Your task to perform on an android device: Open the calendar and show me this week's events Image 0: 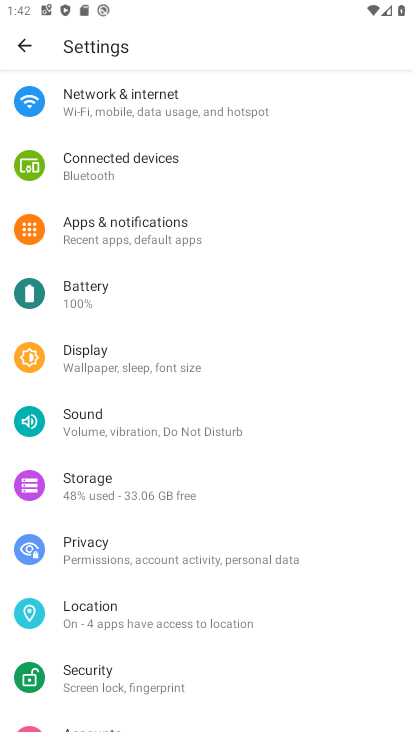
Step 0: press back button
Your task to perform on an android device: Open the calendar and show me this week's events Image 1: 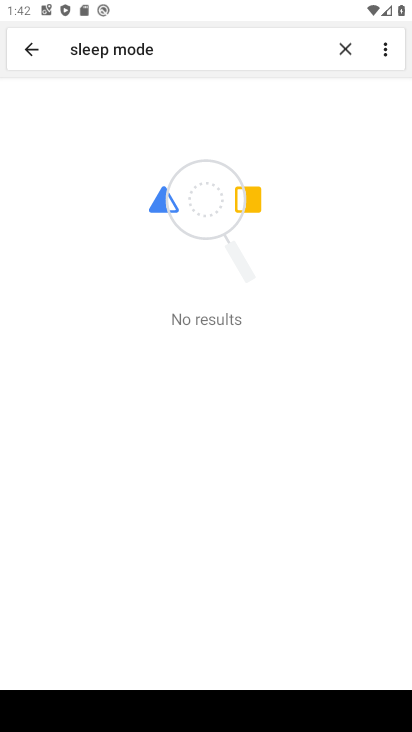
Step 1: press back button
Your task to perform on an android device: Open the calendar and show me this week's events Image 2: 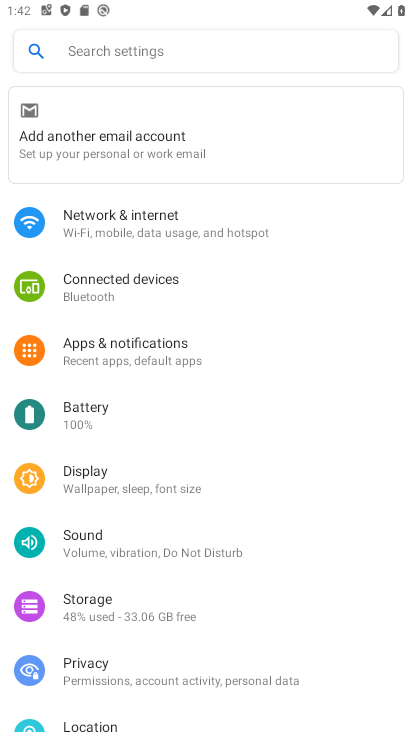
Step 2: press back button
Your task to perform on an android device: Open the calendar and show me this week's events Image 3: 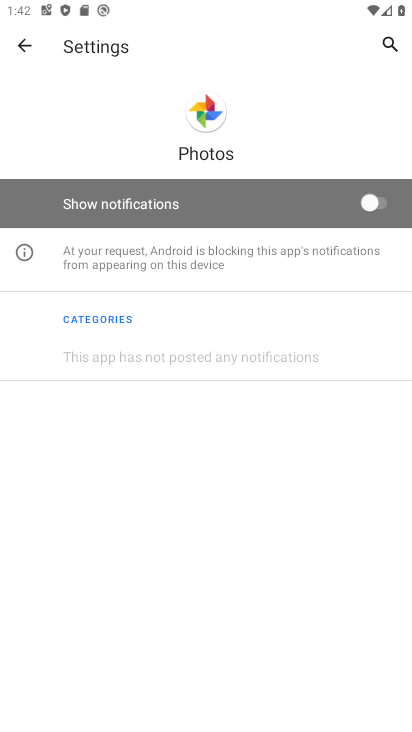
Step 3: press back button
Your task to perform on an android device: Open the calendar and show me this week's events Image 4: 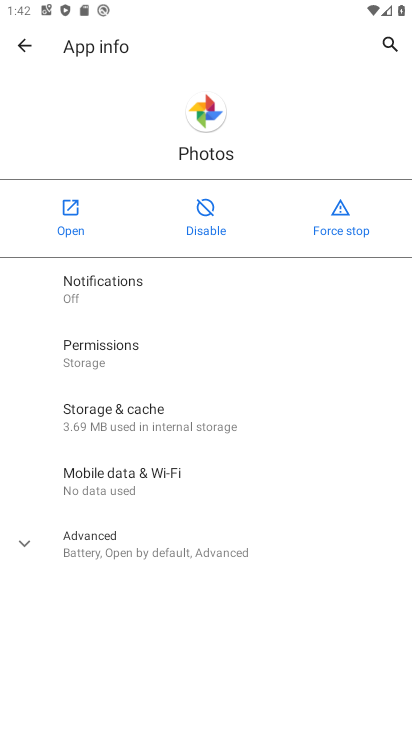
Step 4: press back button
Your task to perform on an android device: Open the calendar and show me this week's events Image 5: 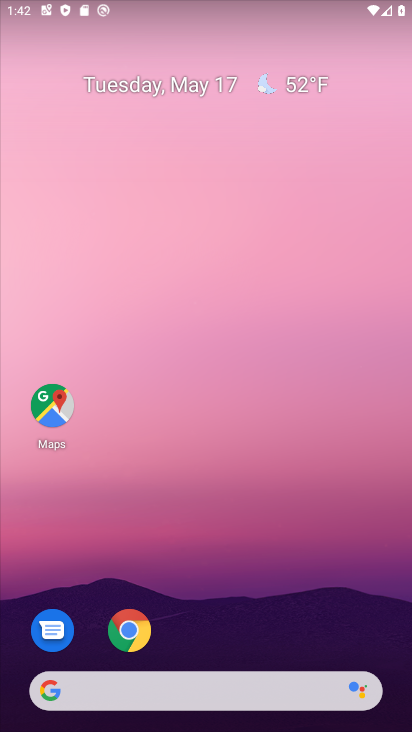
Step 5: drag from (309, 557) to (306, 41)
Your task to perform on an android device: Open the calendar and show me this week's events Image 6: 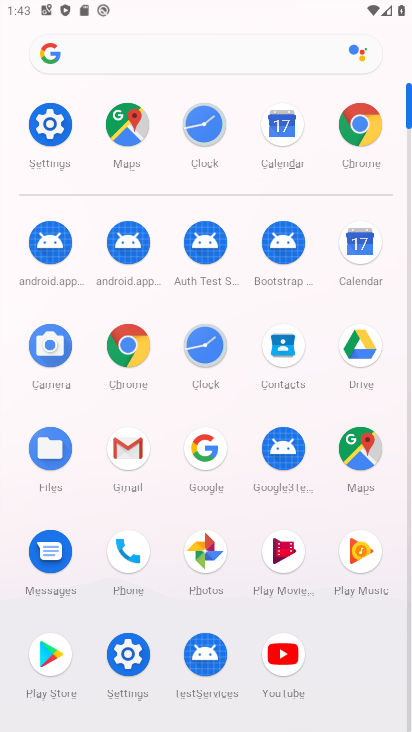
Step 6: click (363, 250)
Your task to perform on an android device: Open the calendar and show me this week's events Image 7: 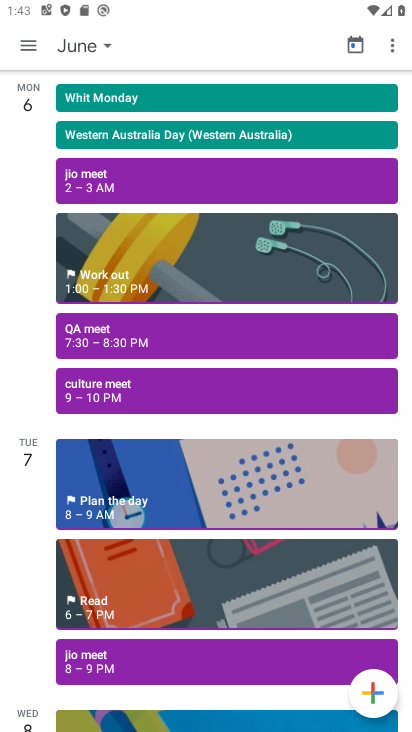
Step 7: click (101, 50)
Your task to perform on an android device: Open the calendar and show me this week's events Image 8: 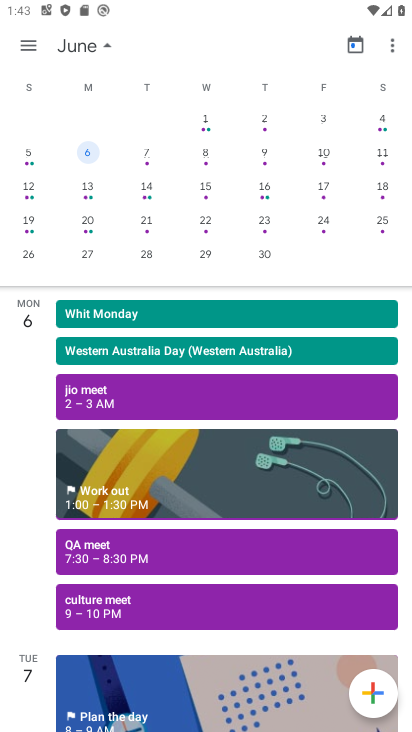
Step 8: drag from (17, 180) to (408, 129)
Your task to perform on an android device: Open the calendar and show me this week's events Image 9: 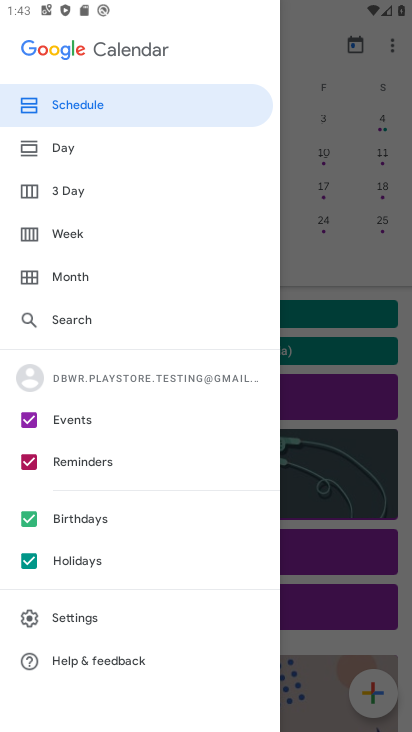
Step 9: click (331, 208)
Your task to perform on an android device: Open the calendar and show me this week's events Image 10: 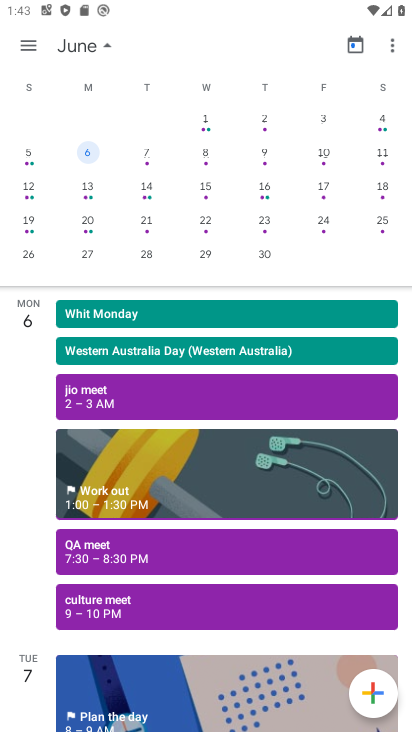
Step 10: drag from (72, 201) to (384, 170)
Your task to perform on an android device: Open the calendar and show me this week's events Image 11: 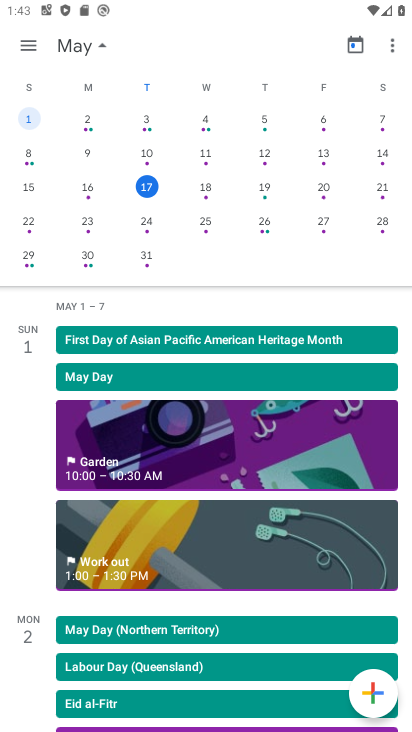
Step 11: click (147, 185)
Your task to perform on an android device: Open the calendar and show me this week's events Image 12: 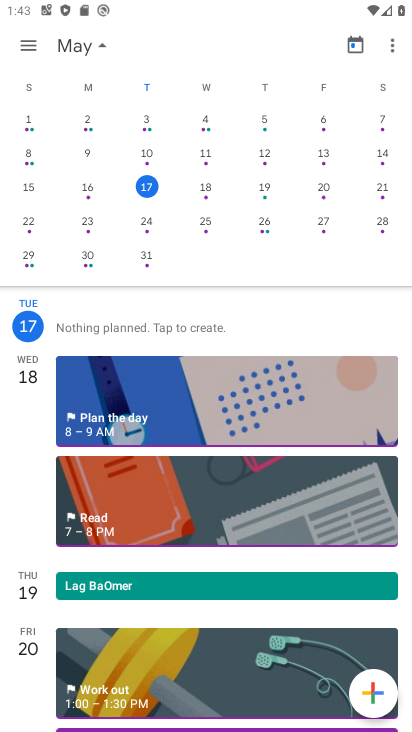
Step 12: drag from (151, 588) to (220, 332)
Your task to perform on an android device: Open the calendar and show me this week's events Image 13: 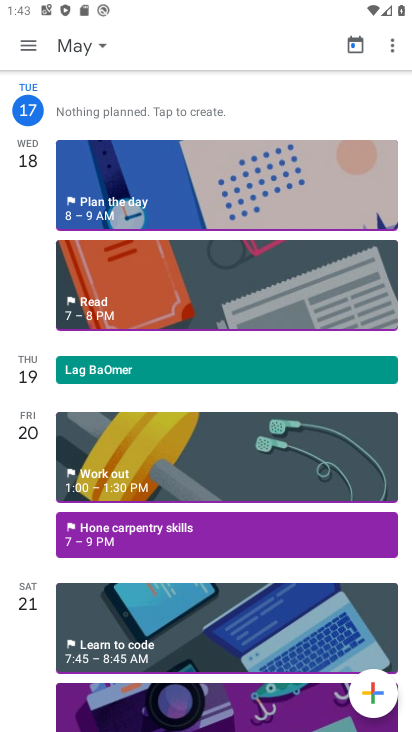
Step 13: click (145, 461)
Your task to perform on an android device: Open the calendar and show me this week's events Image 14: 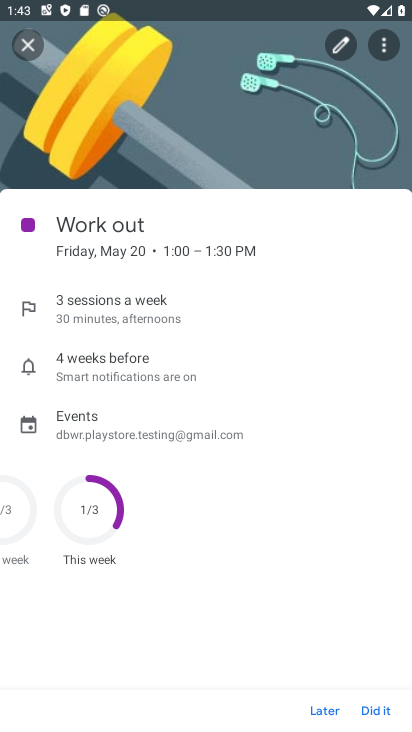
Step 14: task complete